Your task to perform on an android device: Go to accessibility settings Image 0: 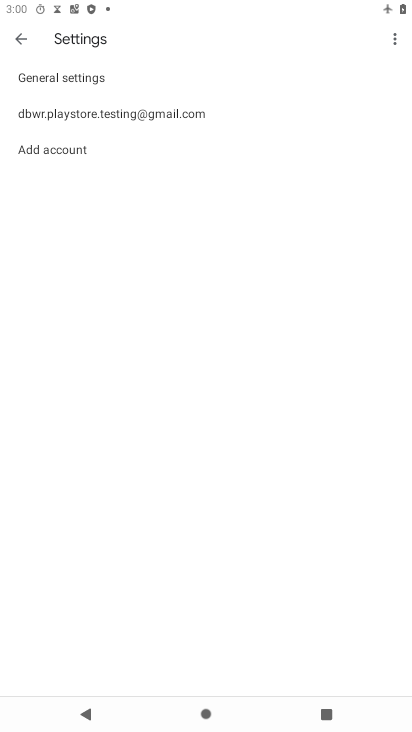
Step 0: press home button
Your task to perform on an android device: Go to accessibility settings Image 1: 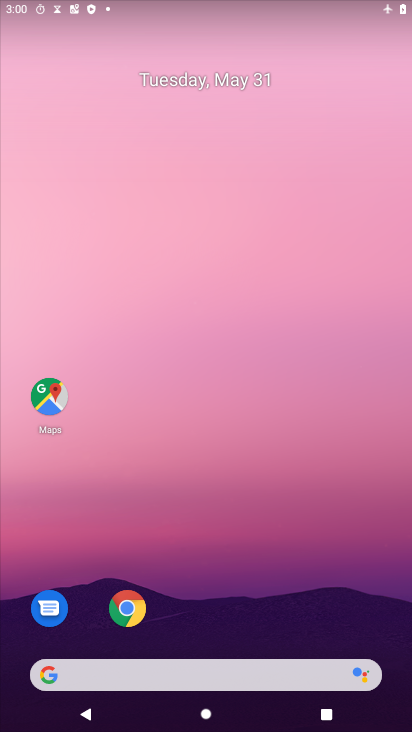
Step 1: drag from (218, 630) to (334, 130)
Your task to perform on an android device: Go to accessibility settings Image 2: 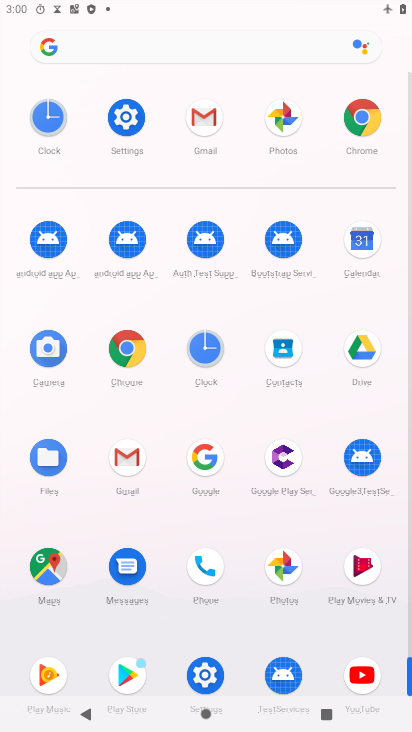
Step 2: click (203, 663)
Your task to perform on an android device: Go to accessibility settings Image 3: 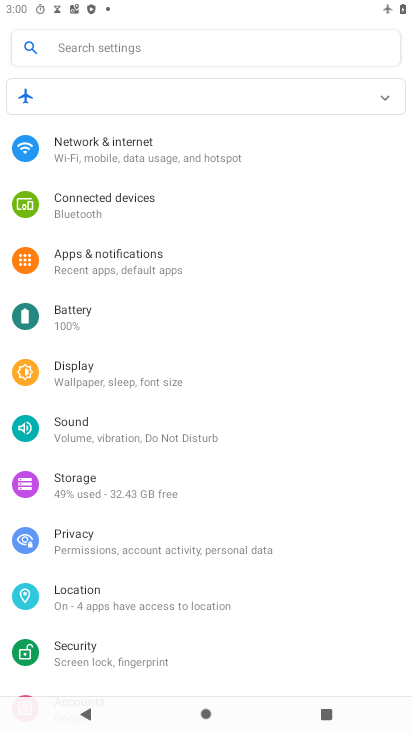
Step 3: drag from (128, 616) to (174, 252)
Your task to perform on an android device: Go to accessibility settings Image 4: 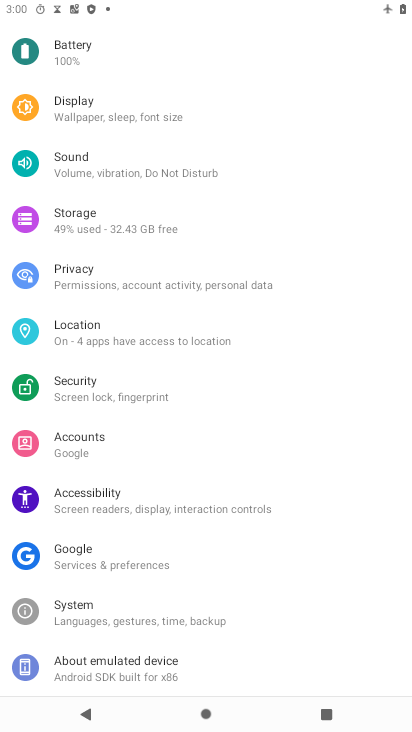
Step 4: click (120, 500)
Your task to perform on an android device: Go to accessibility settings Image 5: 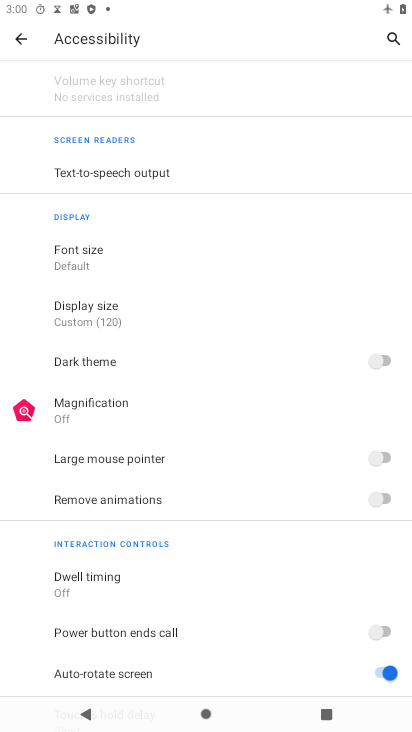
Step 5: task complete